Your task to perform on an android device: install app "WhatsApp Messenger" Image 0: 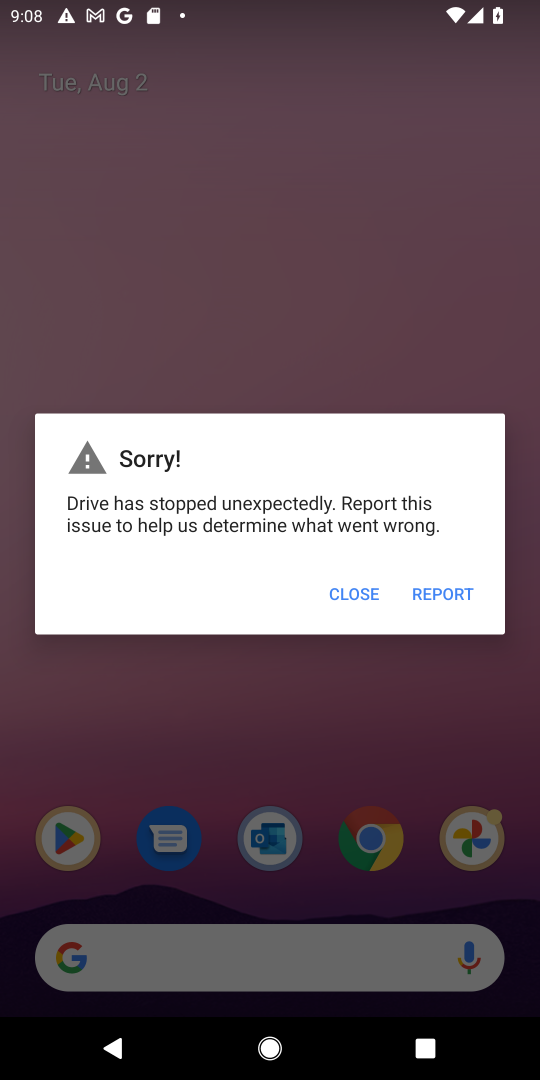
Step 0: press home button
Your task to perform on an android device: install app "WhatsApp Messenger" Image 1: 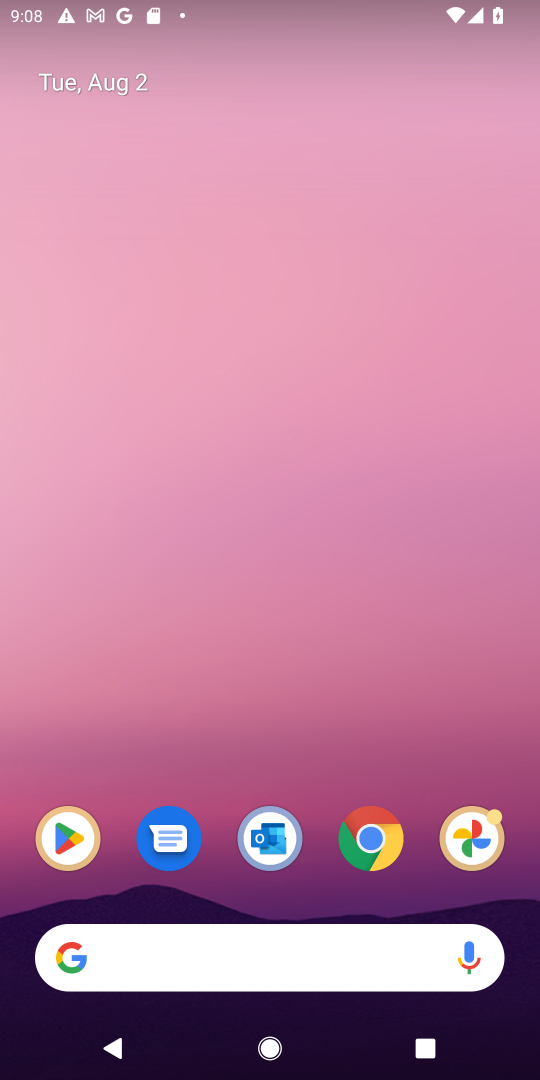
Step 1: drag from (312, 760) to (328, 95)
Your task to perform on an android device: install app "WhatsApp Messenger" Image 2: 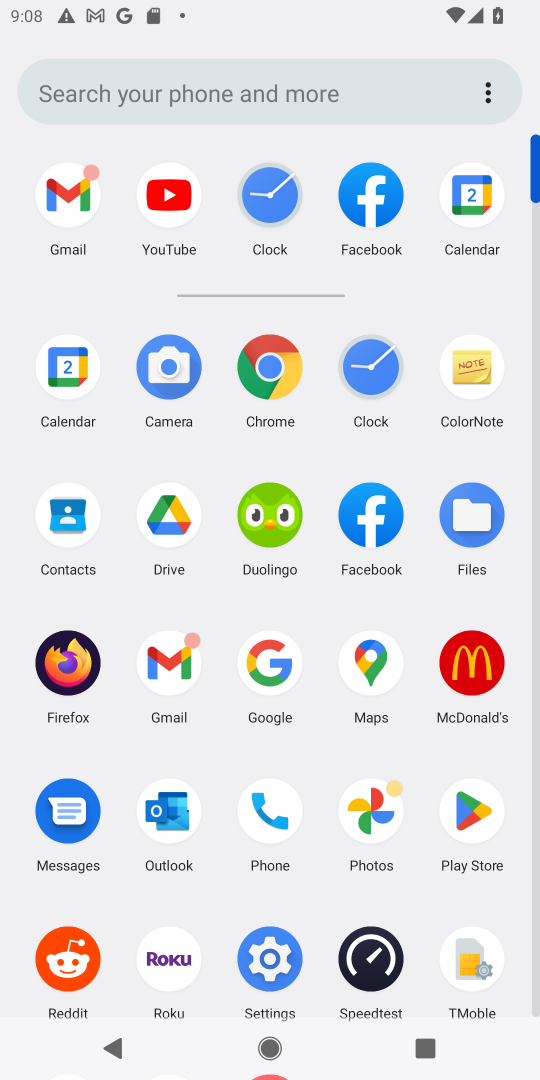
Step 2: click (472, 822)
Your task to perform on an android device: install app "WhatsApp Messenger" Image 3: 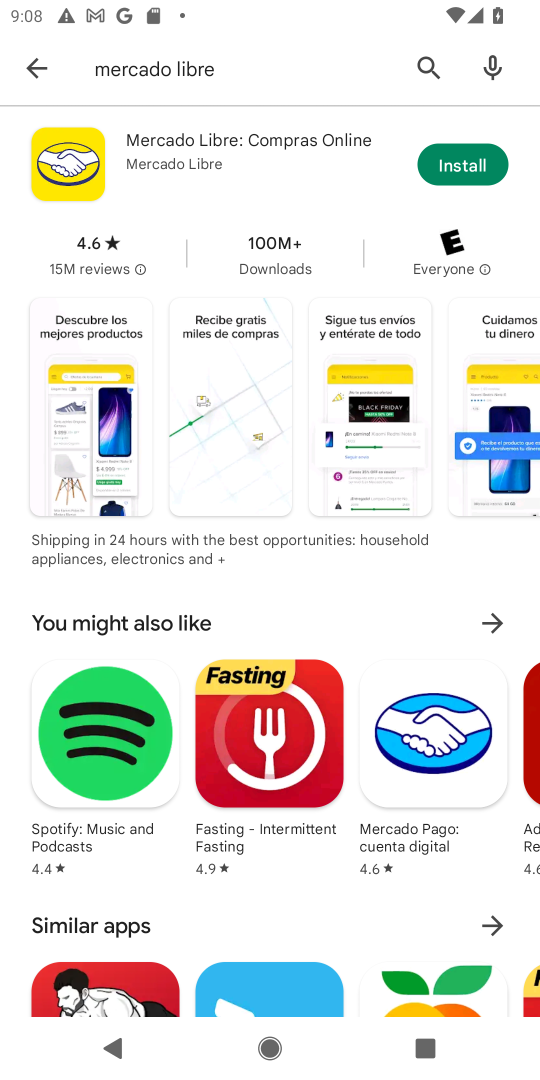
Step 3: click (432, 69)
Your task to perform on an android device: install app "WhatsApp Messenger" Image 4: 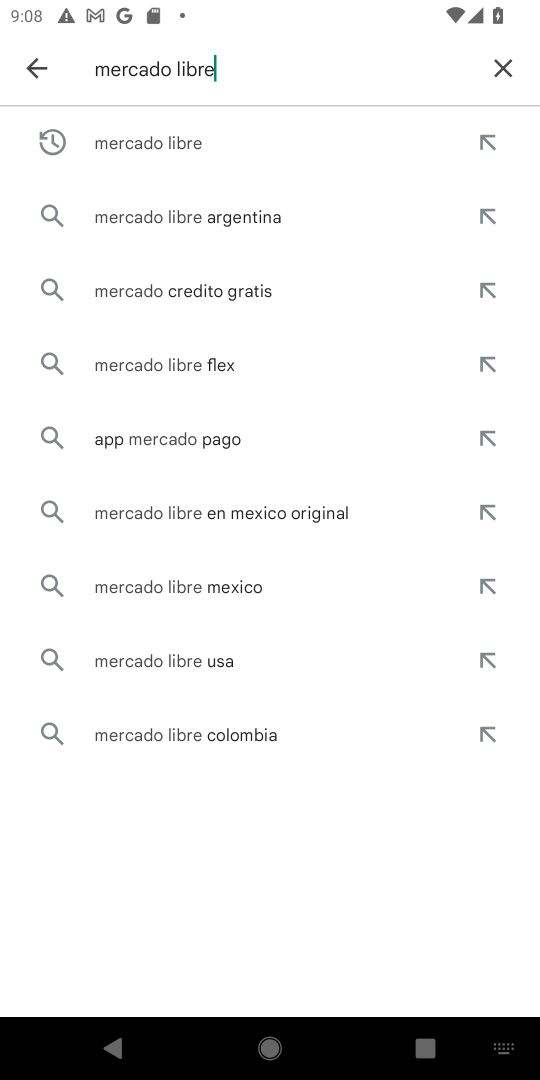
Step 4: click (512, 57)
Your task to perform on an android device: install app "WhatsApp Messenger" Image 5: 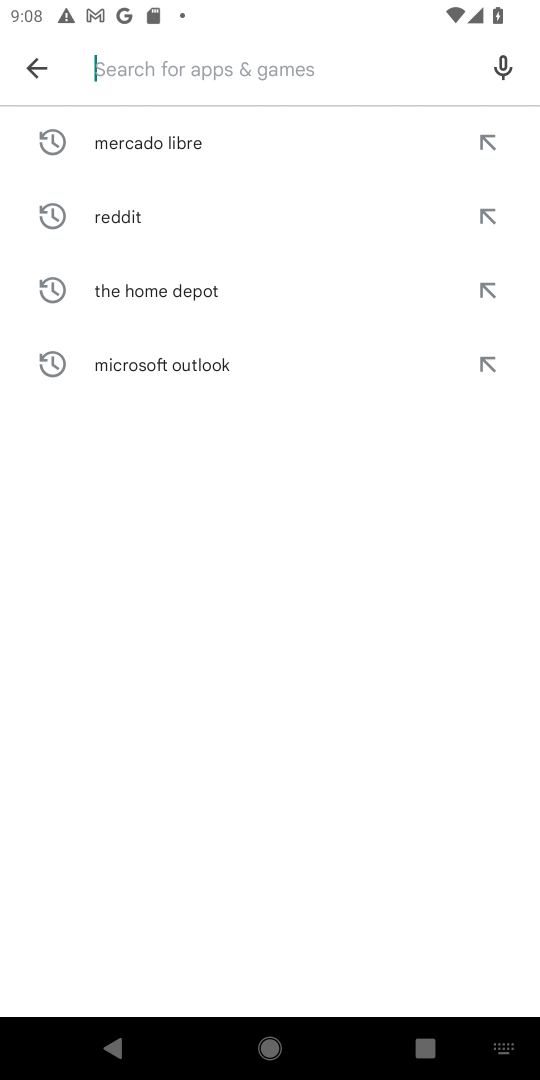
Step 5: click (292, 72)
Your task to perform on an android device: install app "WhatsApp Messenger" Image 6: 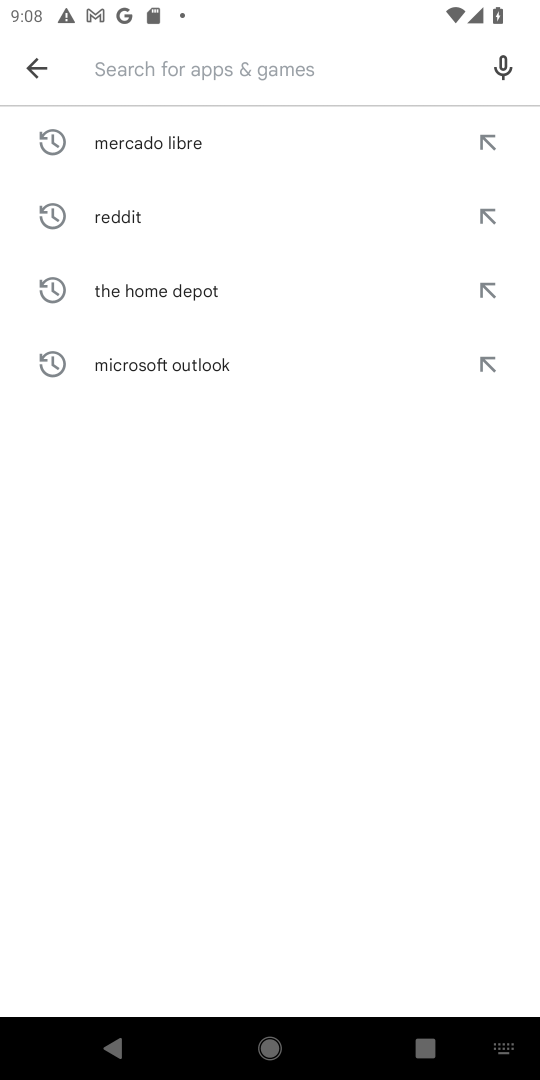
Step 6: type "whatsapp"
Your task to perform on an android device: install app "WhatsApp Messenger" Image 7: 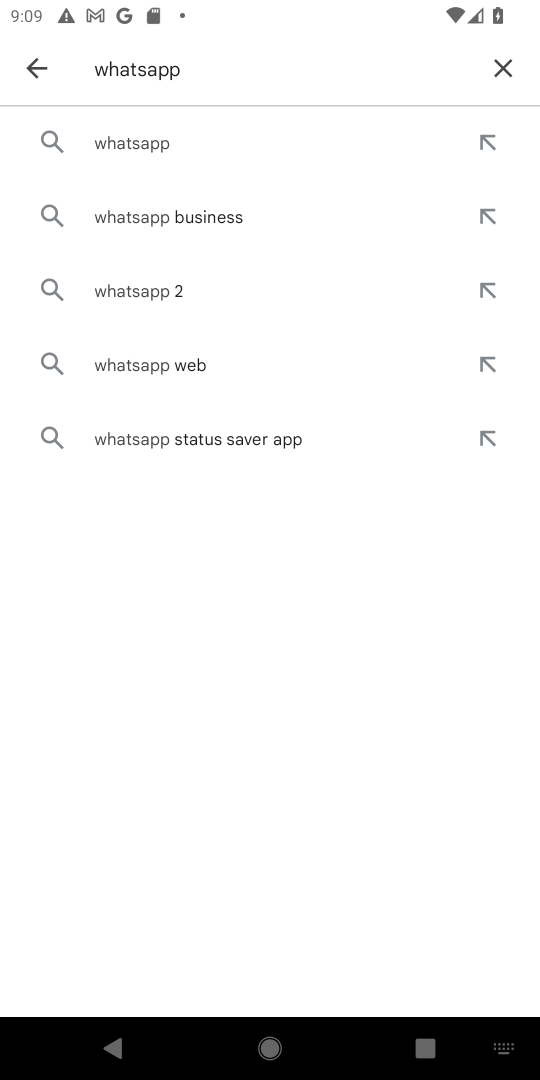
Step 7: type " messenger"
Your task to perform on an android device: install app "WhatsApp Messenger" Image 8: 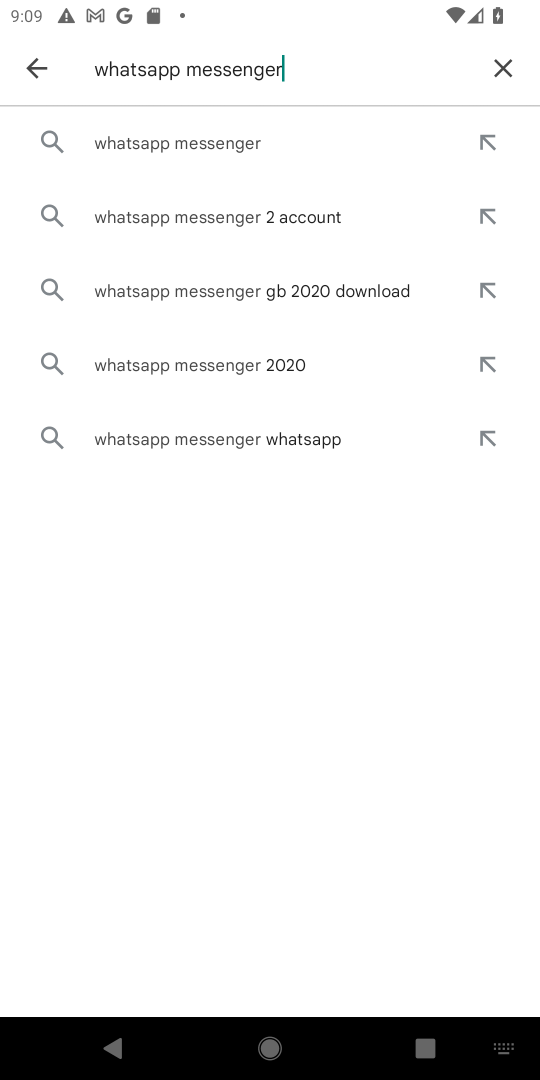
Step 8: click (295, 146)
Your task to perform on an android device: install app "WhatsApp Messenger" Image 9: 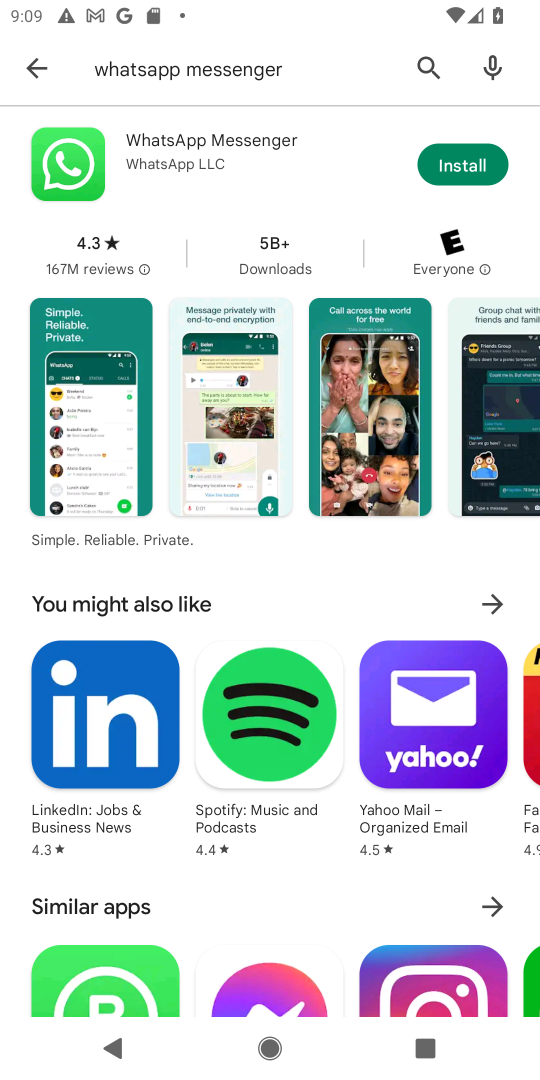
Step 9: click (472, 161)
Your task to perform on an android device: install app "WhatsApp Messenger" Image 10: 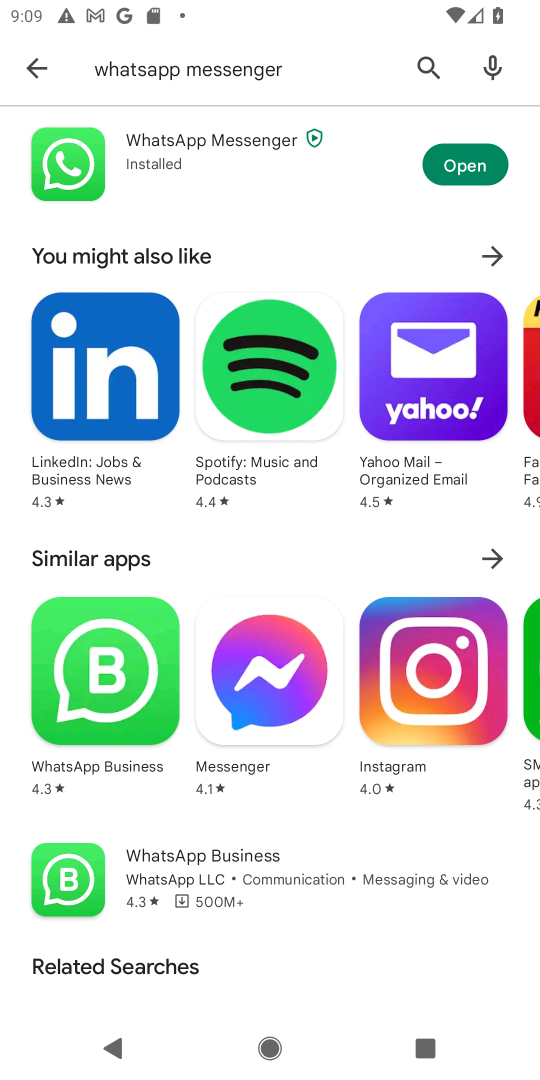
Step 10: task complete